Your task to perform on an android device: open app "The Home Depot" Image 0: 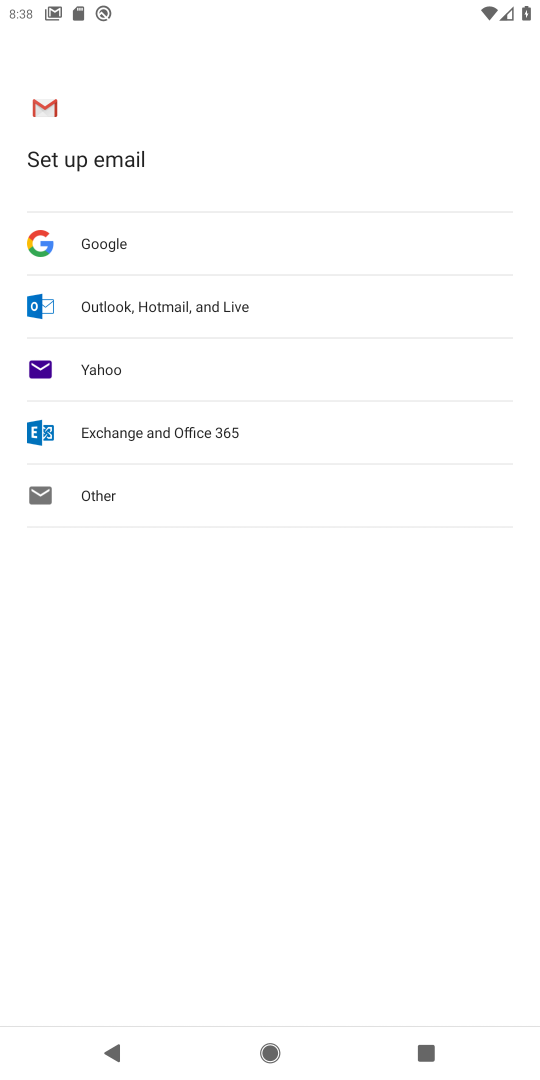
Step 0: press home button
Your task to perform on an android device: open app "The Home Depot" Image 1: 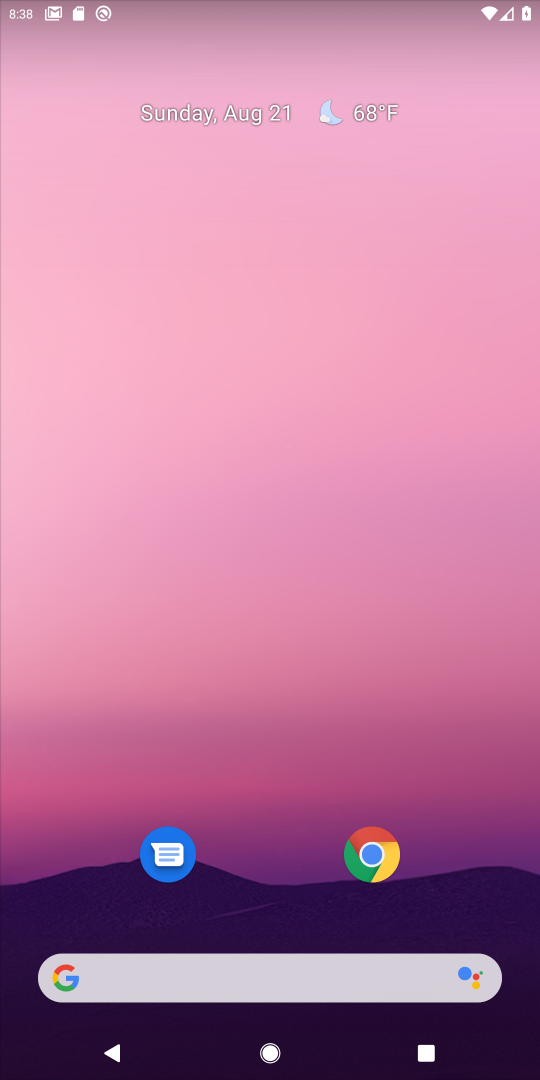
Step 1: drag from (247, 508) to (272, 220)
Your task to perform on an android device: open app "The Home Depot" Image 2: 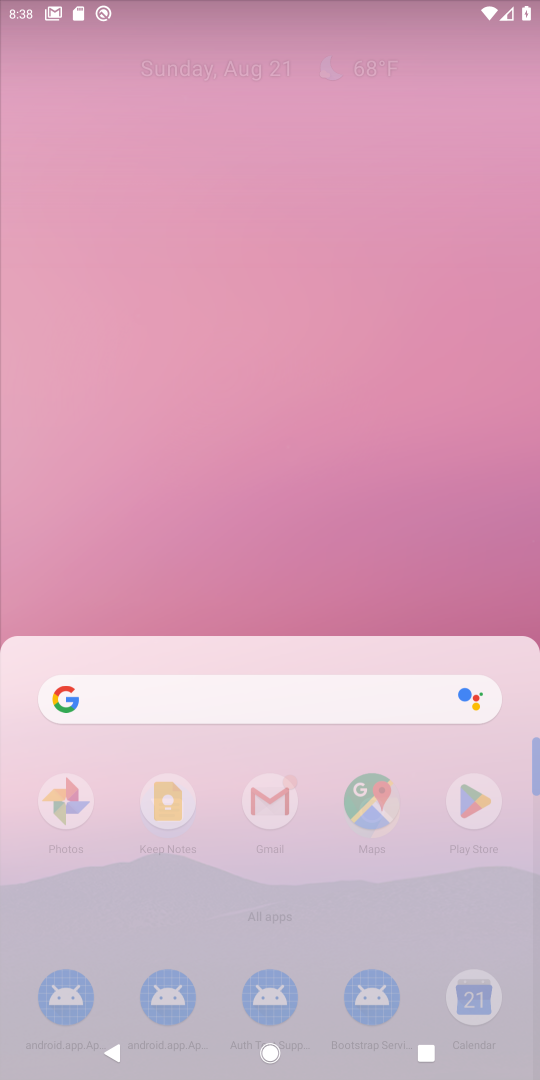
Step 2: drag from (265, 900) to (266, 51)
Your task to perform on an android device: open app "The Home Depot" Image 3: 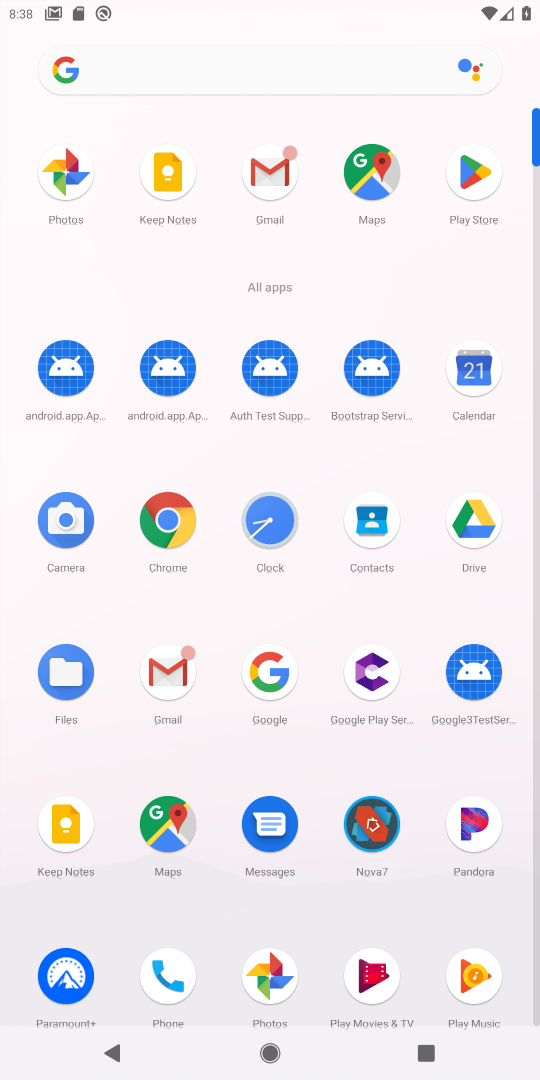
Step 3: click (452, 189)
Your task to perform on an android device: open app "The Home Depot" Image 4: 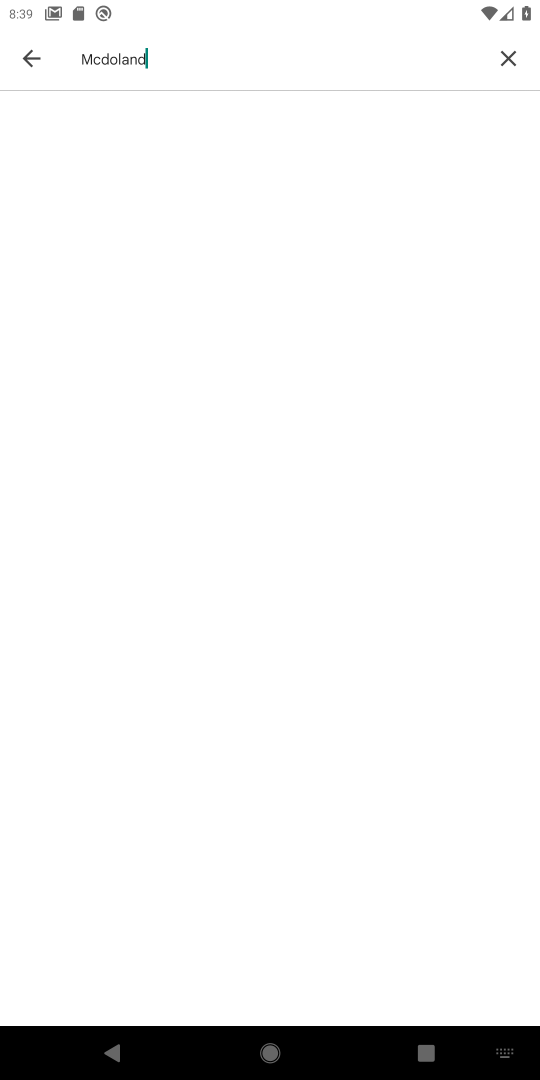
Step 4: click (501, 51)
Your task to perform on an android device: open app "The Home Depot" Image 5: 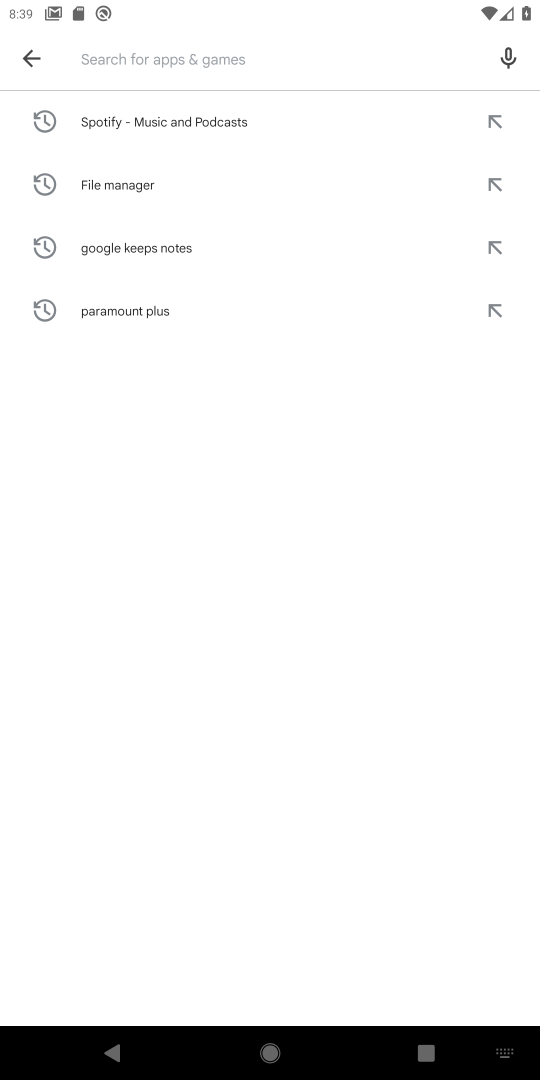
Step 5: type "the home depot"
Your task to perform on an android device: open app "The Home Depot" Image 6: 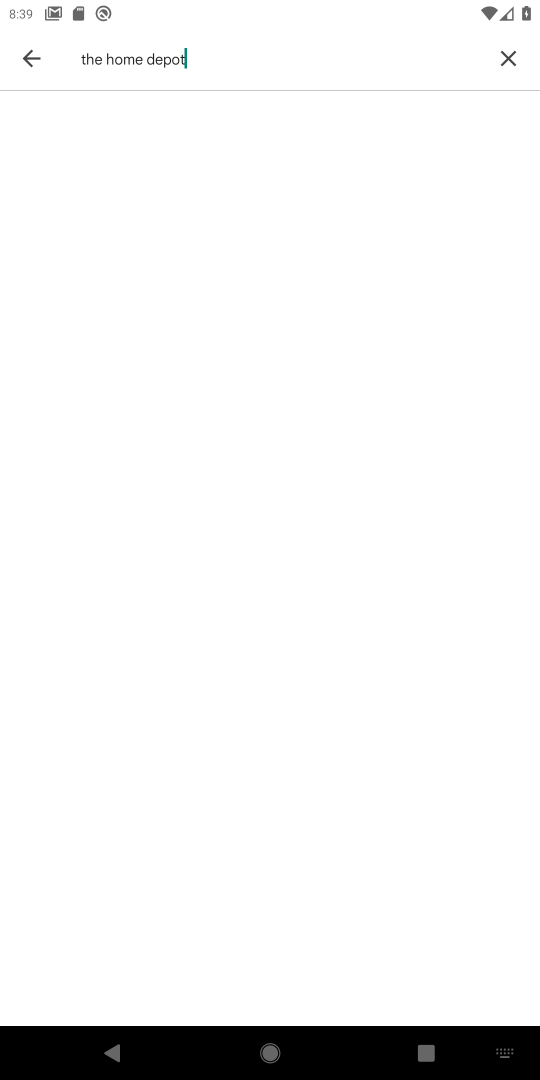
Step 6: task complete